Your task to perform on an android device: see sites visited before in the chrome app Image 0: 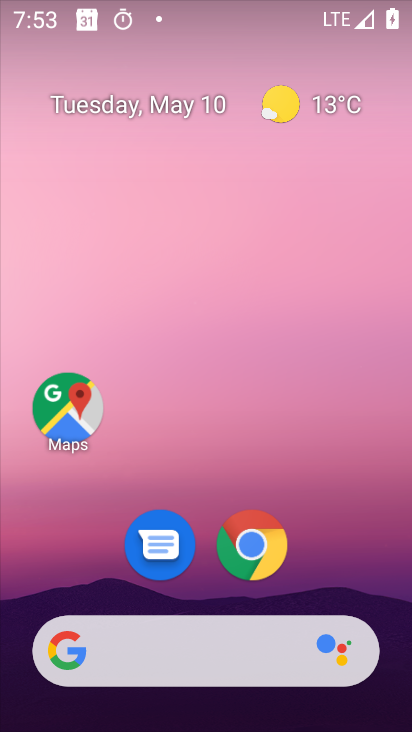
Step 0: click (243, 542)
Your task to perform on an android device: see sites visited before in the chrome app Image 1: 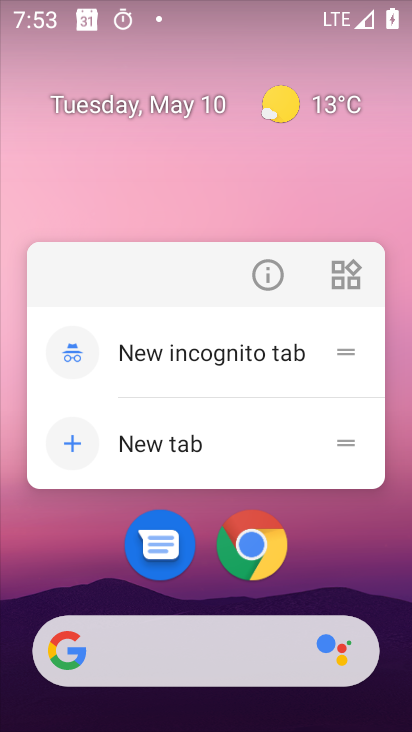
Step 1: click (246, 541)
Your task to perform on an android device: see sites visited before in the chrome app Image 2: 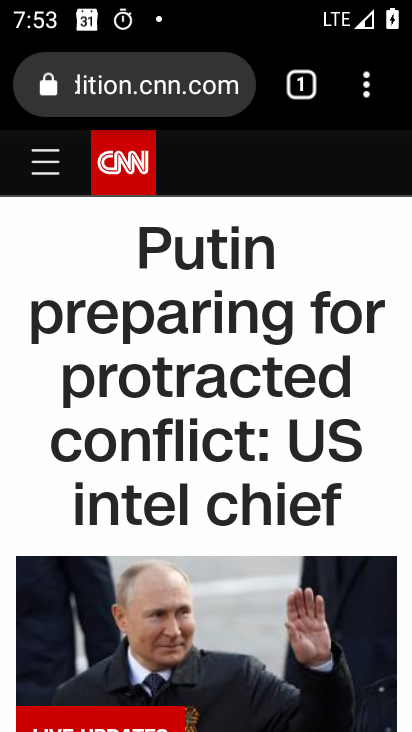
Step 2: click (364, 90)
Your task to perform on an android device: see sites visited before in the chrome app Image 3: 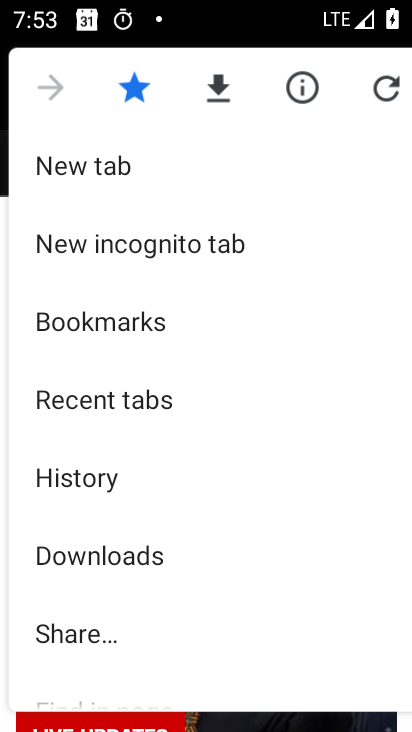
Step 3: click (129, 465)
Your task to perform on an android device: see sites visited before in the chrome app Image 4: 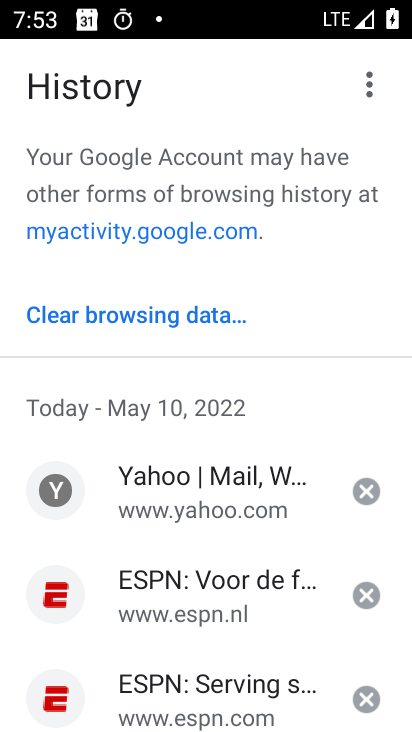
Step 4: task complete